Your task to perform on an android device: Go to Yahoo.com Image 0: 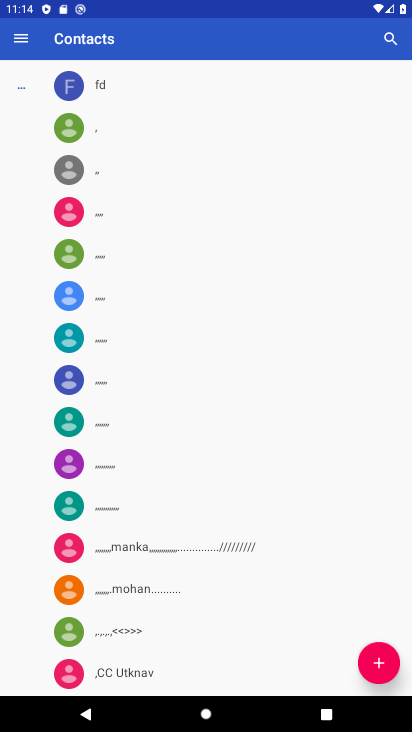
Step 0: press home button
Your task to perform on an android device: Go to Yahoo.com Image 1: 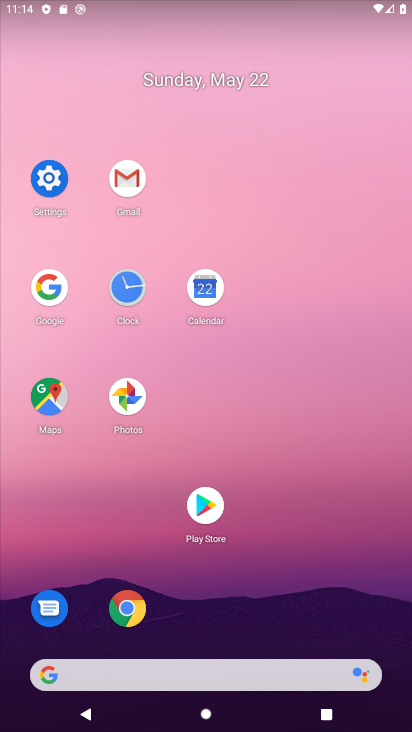
Step 1: click (133, 611)
Your task to perform on an android device: Go to Yahoo.com Image 2: 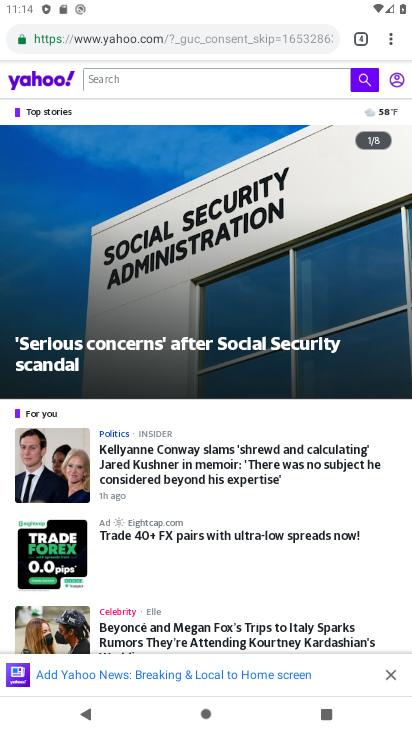
Step 2: task complete